Your task to perform on an android device: Show me the best 1080p monitor on Target.com Image 0: 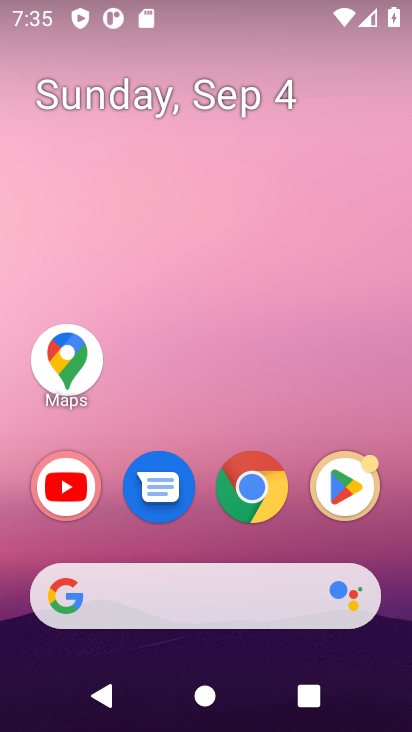
Step 0: drag from (175, 440) to (186, 39)
Your task to perform on an android device: Show me the best 1080p monitor on Target.com Image 1: 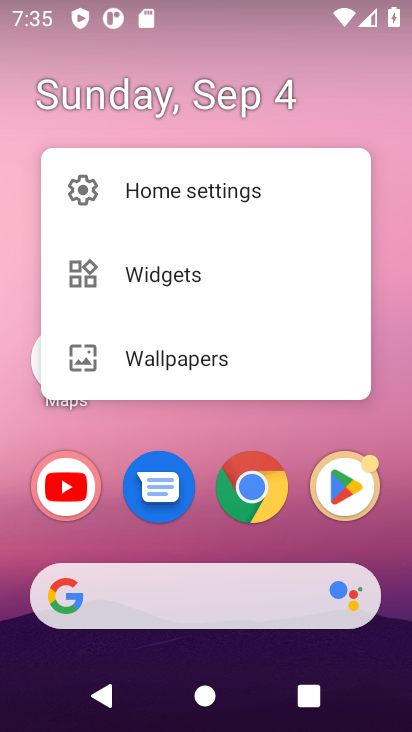
Step 1: click (193, 512)
Your task to perform on an android device: Show me the best 1080p monitor on Target.com Image 2: 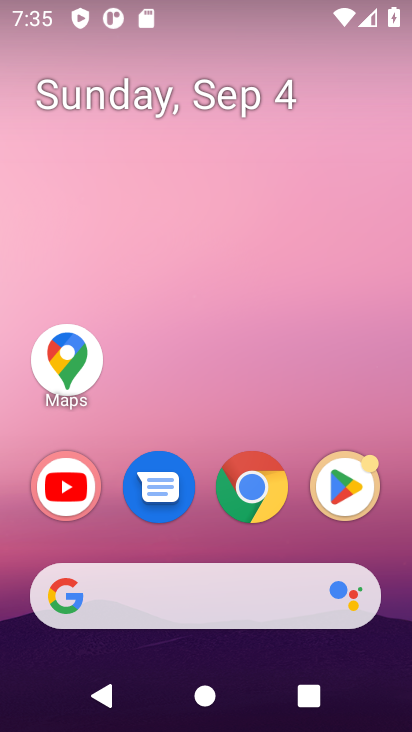
Step 2: click (156, 589)
Your task to perform on an android device: Show me the best 1080p monitor on Target.com Image 3: 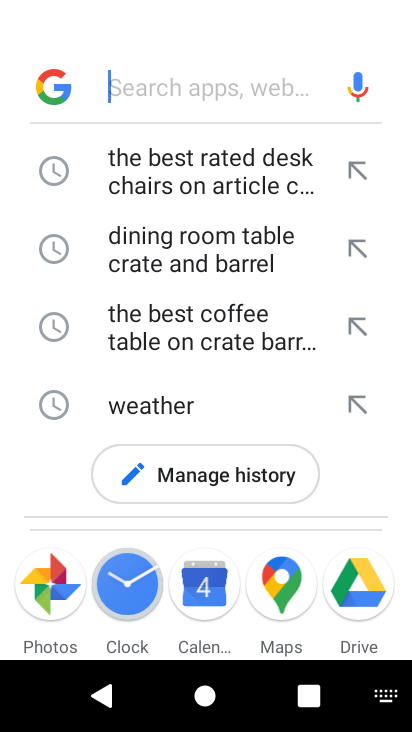
Step 3: type "the best 1080p monitor on Target.com"
Your task to perform on an android device: Show me the best 1080p monitor on Target.com Image 4: 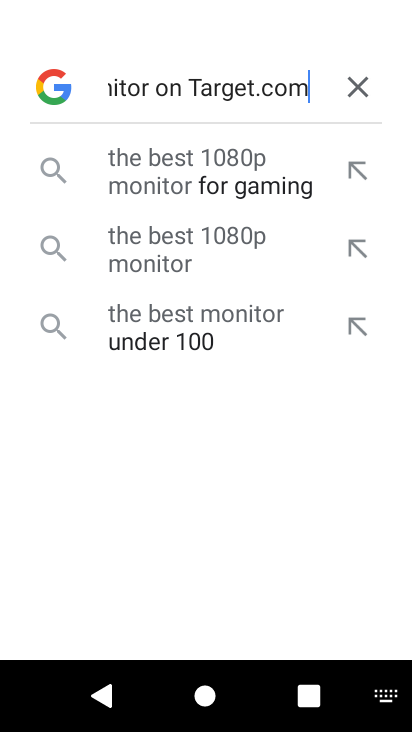
Step 4: click (239, 189)
Your task to perform on an android device: Show me the best 1080p monitor on Target.com Image 5: 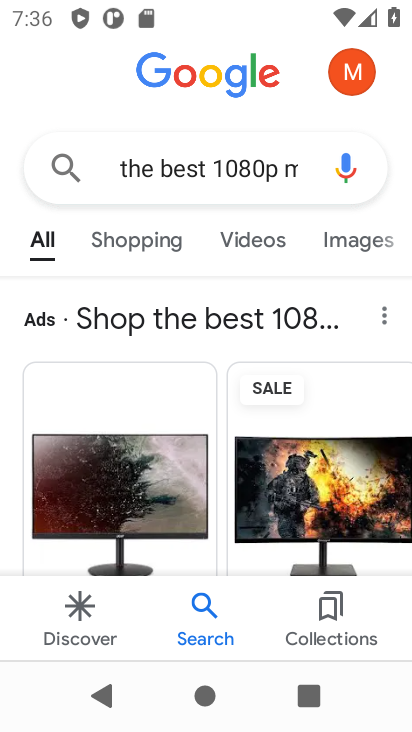
Step 5: task complete